Your task to perform on an android device: Open eBay Image 0: 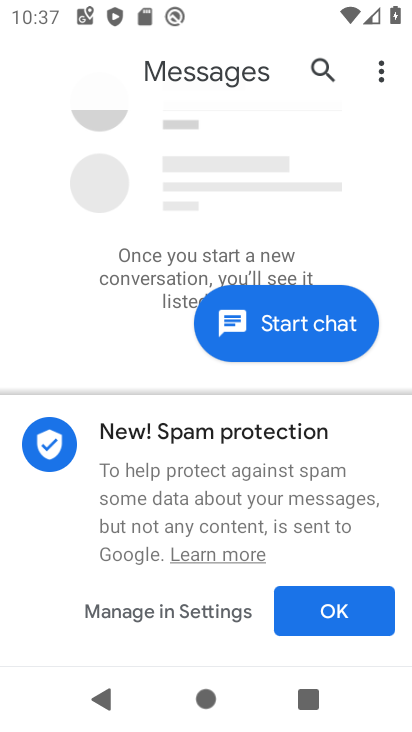
Step 0: press home button
Your task to perform on an android device: Open eBay Image 1: 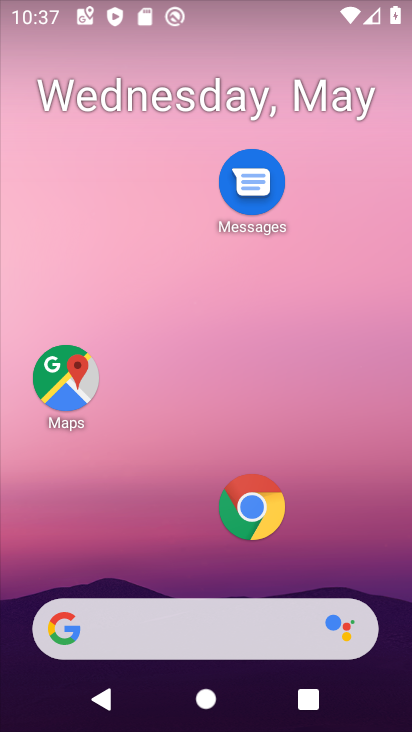
Step 1: drag from (186, 575) to (228, 104)
Your task to perform on an android device: Open eBay Image 2: 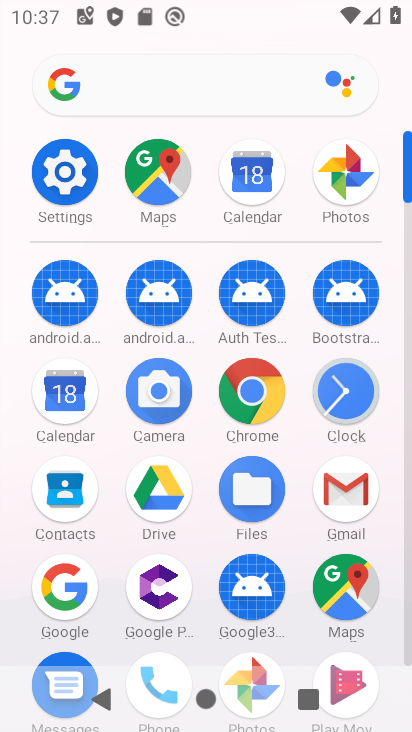
Step 2: click (248, 390)
Your task to perform on an android device: Open eBay Image 3: 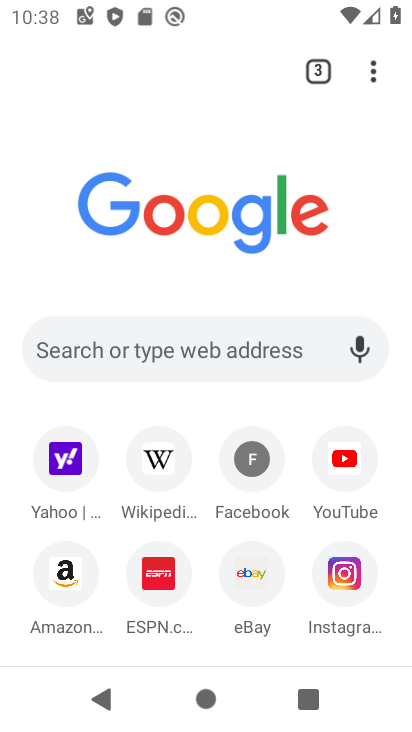
Step 3: click (253, 572)
Your task to perform on an android device: Open eBay Image 4: 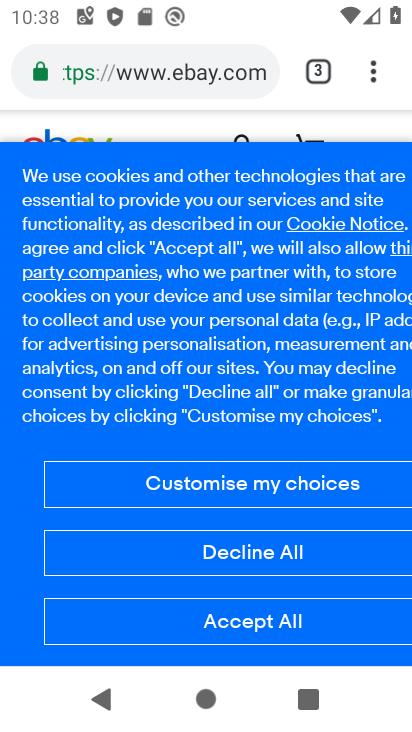
Step 4: click (255, 622)
Your task to perform on an android device: Open eBay Image 5: 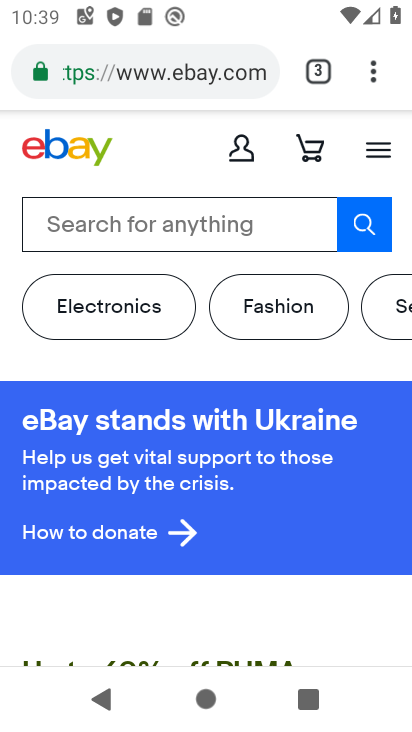
Step 5: task complete